Your task to perform on an android device: set an alarm Image 0: 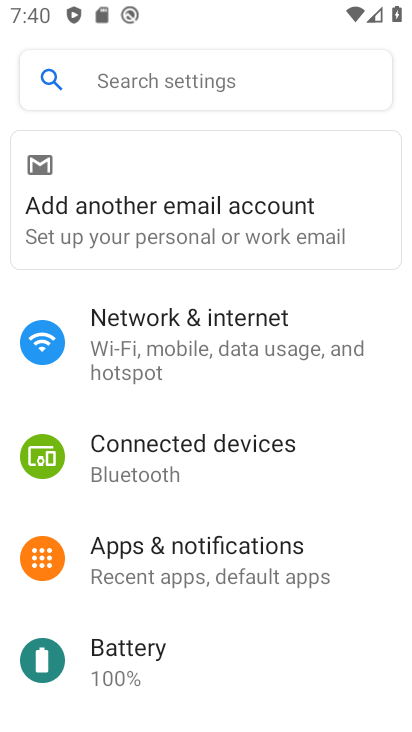
Step 0: press home button
Your task to perform on an android device: set an alarm Image 1: 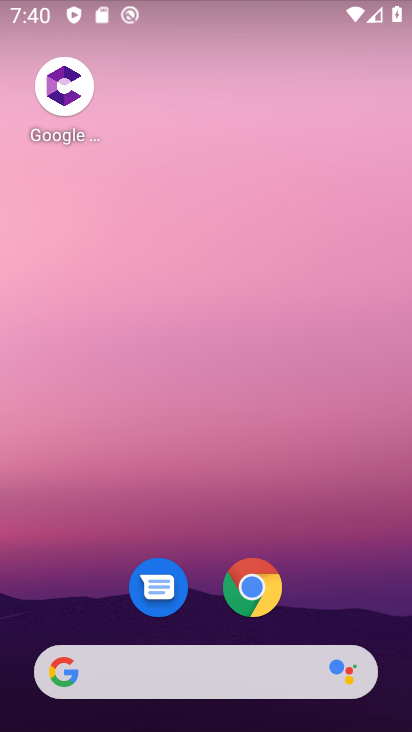
Step 1: drag from (311, 612) to (305, 91)
Your task to perform on an android device: set an alarm Image 2: 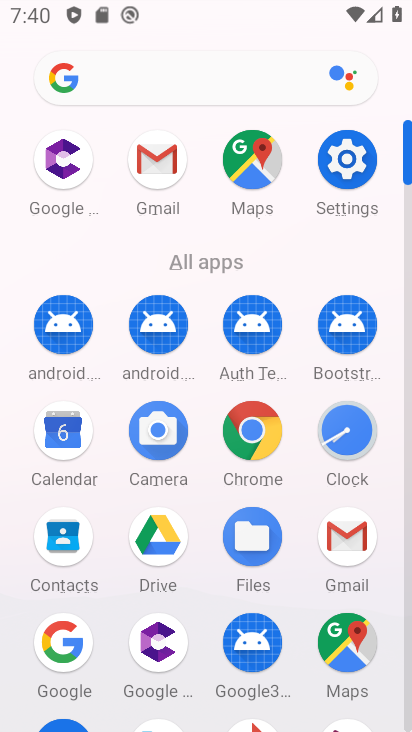
Step 2: click (334, 434)
Your task to perform on an android device: set an alarm Image 3: 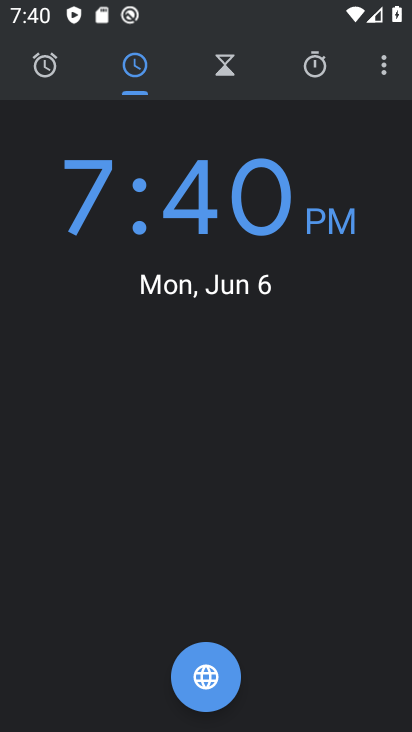
Step 3: click (44, 56)
Your task to perform on an android device: set an alarm Image 4: 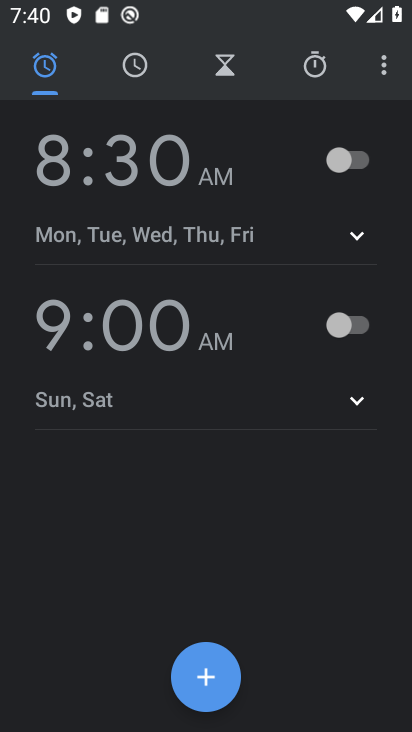
Step 4: click (350, 154)
Your task to perform on an android device: set an alarm Image 5: 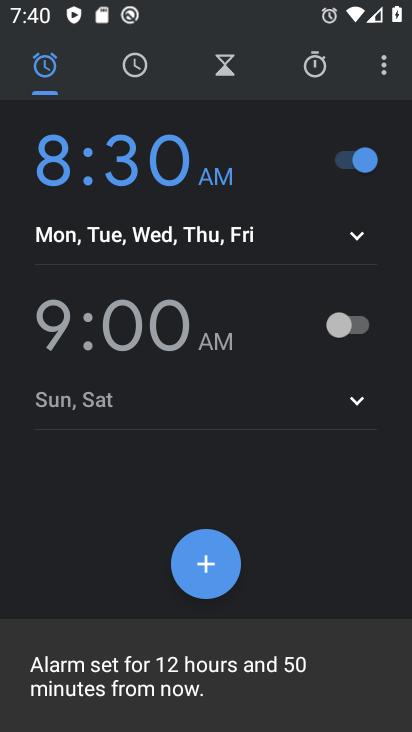
Step 5: task complete